Your task to perform on an android device: Go to calendar. Show me events next week Image 0: 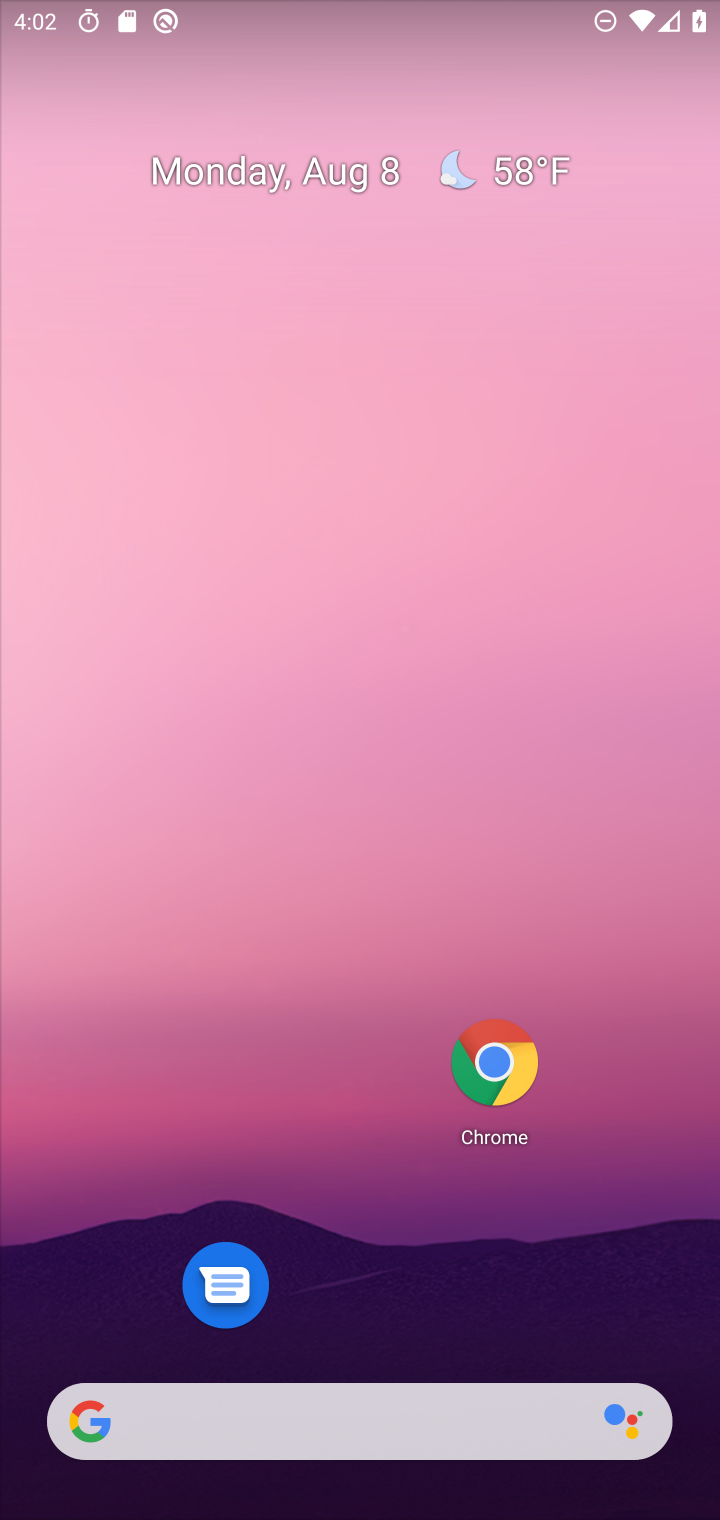
Step 0: drag from (315, 1274) to (300, 190)
Your task to perform on an android device: Go to calendar. Show me events next week Image 1: 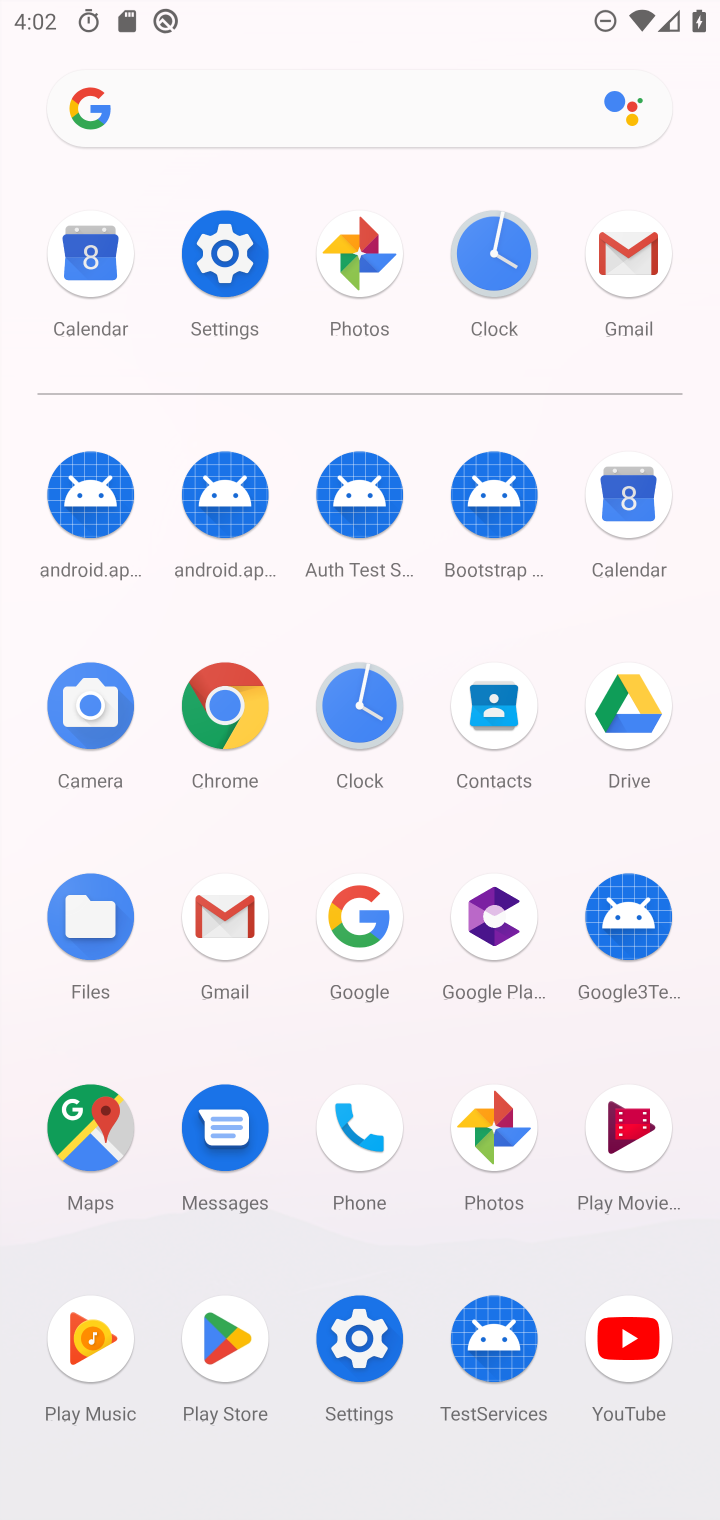
Step 1: click (108, 273)
Your task to perform on an android device: Go to calendar. Show me events next week Image 2: 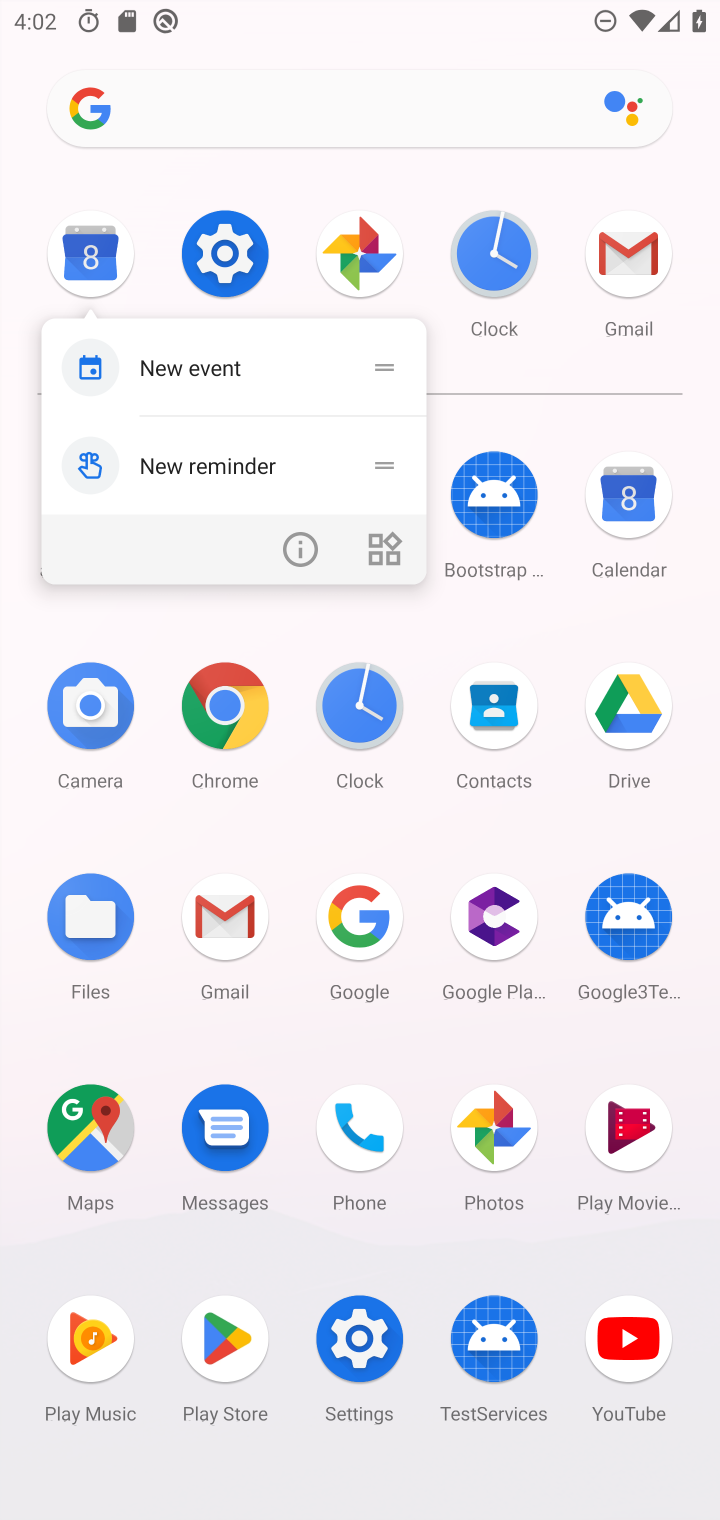
Step 2: click (90, 238)
Your task to perform on an android device: Go to calendar. Show me events next week Image 3: 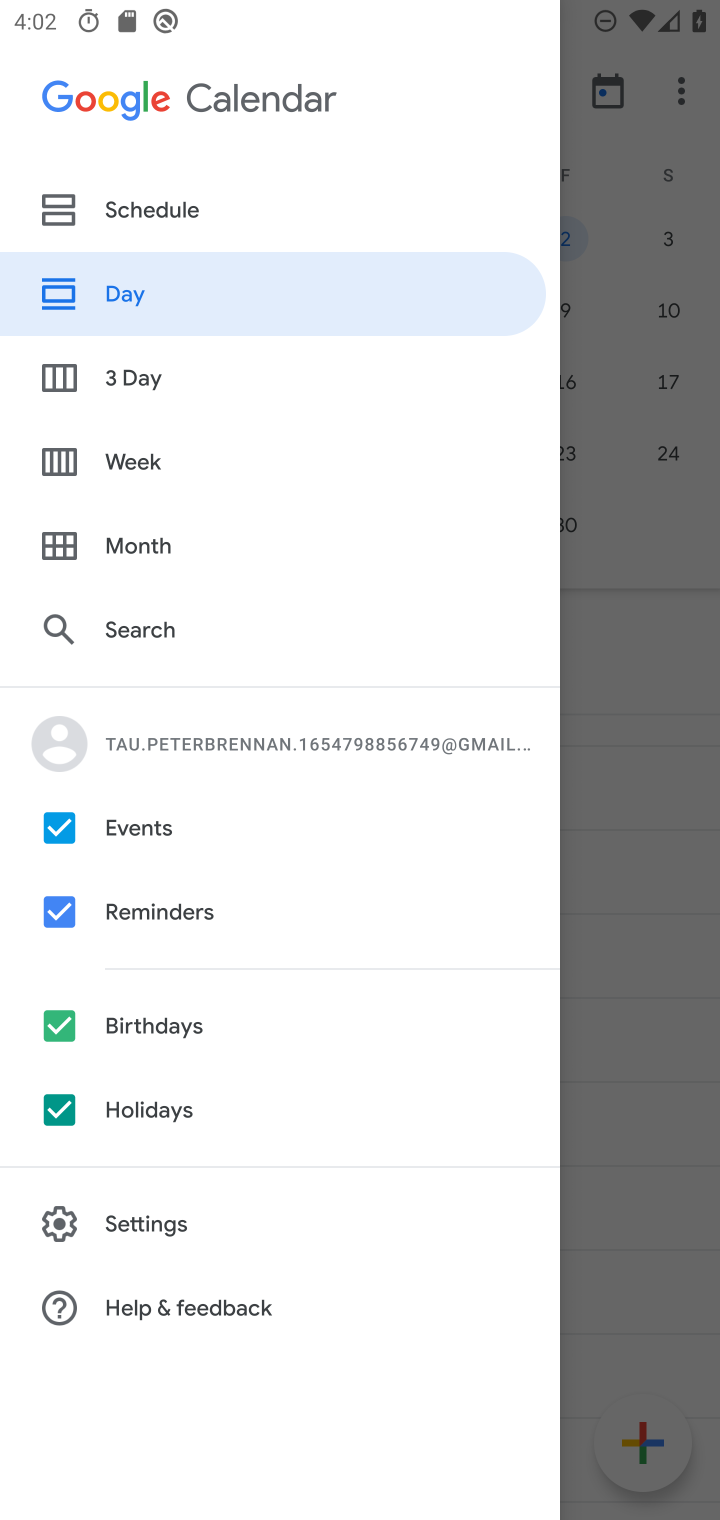
Step 3: click (208, 206)
Your task to perform on an android device: Go to calendar. Show me events next week Image 4: 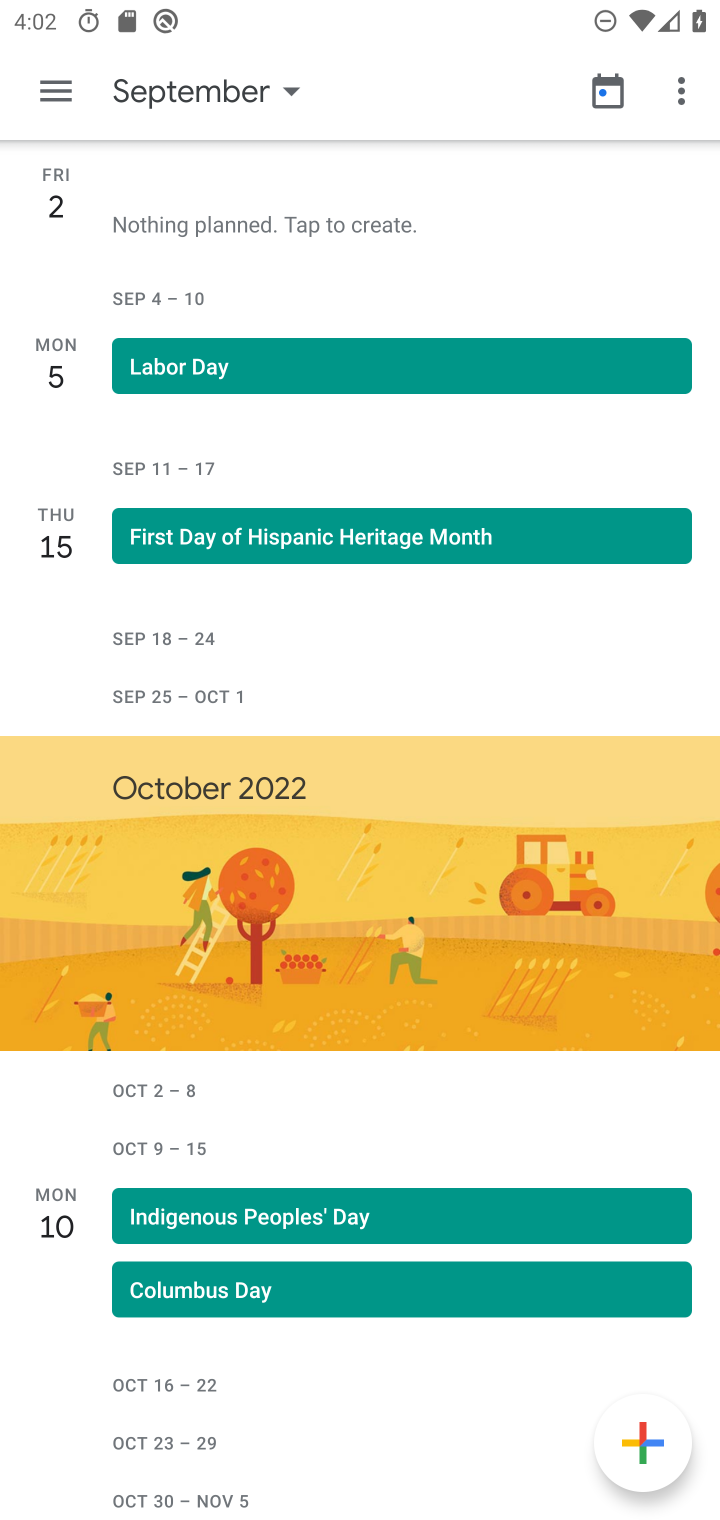
Step 4: click (279, 83)
Your task to perform on an android device: Go to calendar. Show me events next week Image 5: 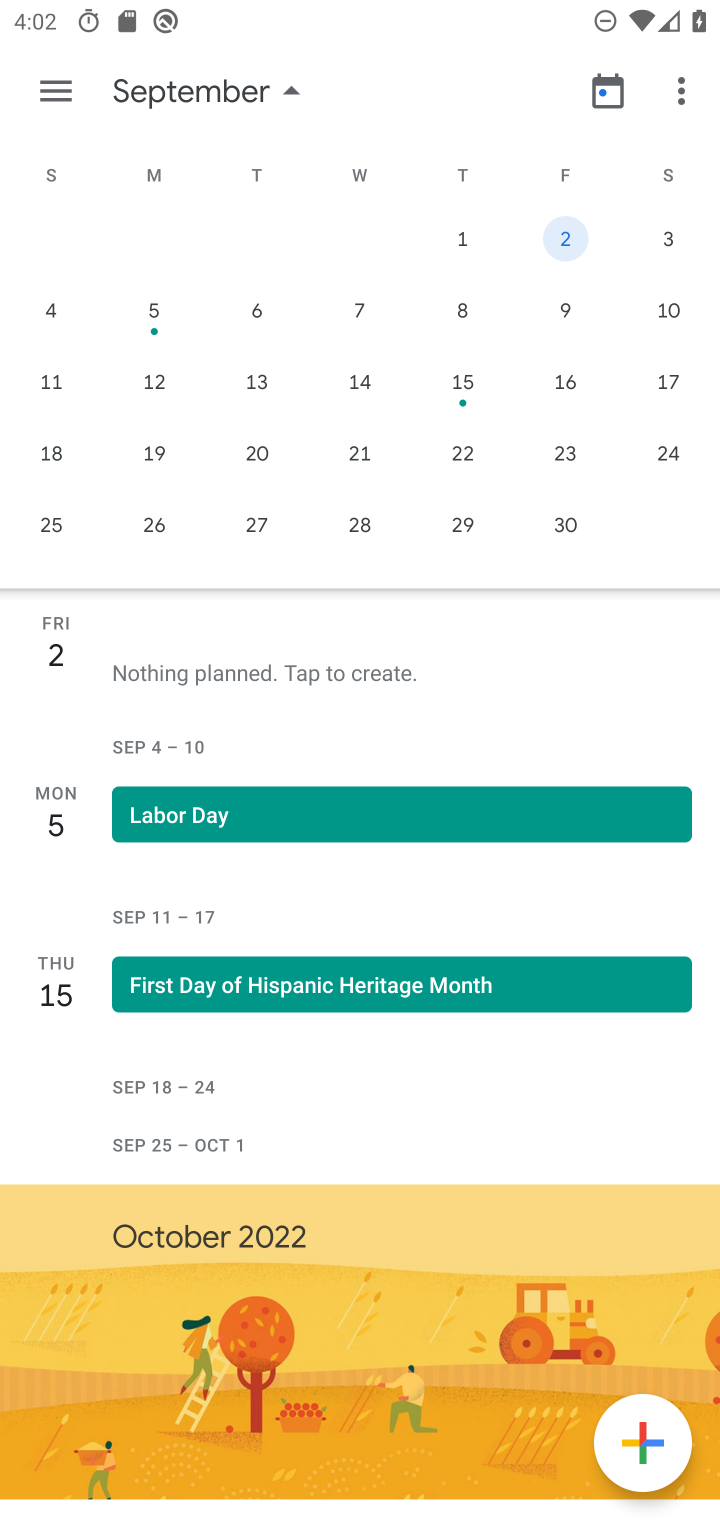
Step 5: click (660, 385)
Your task to perform on an android device: Go to calendar. Show me events next week Image 6: 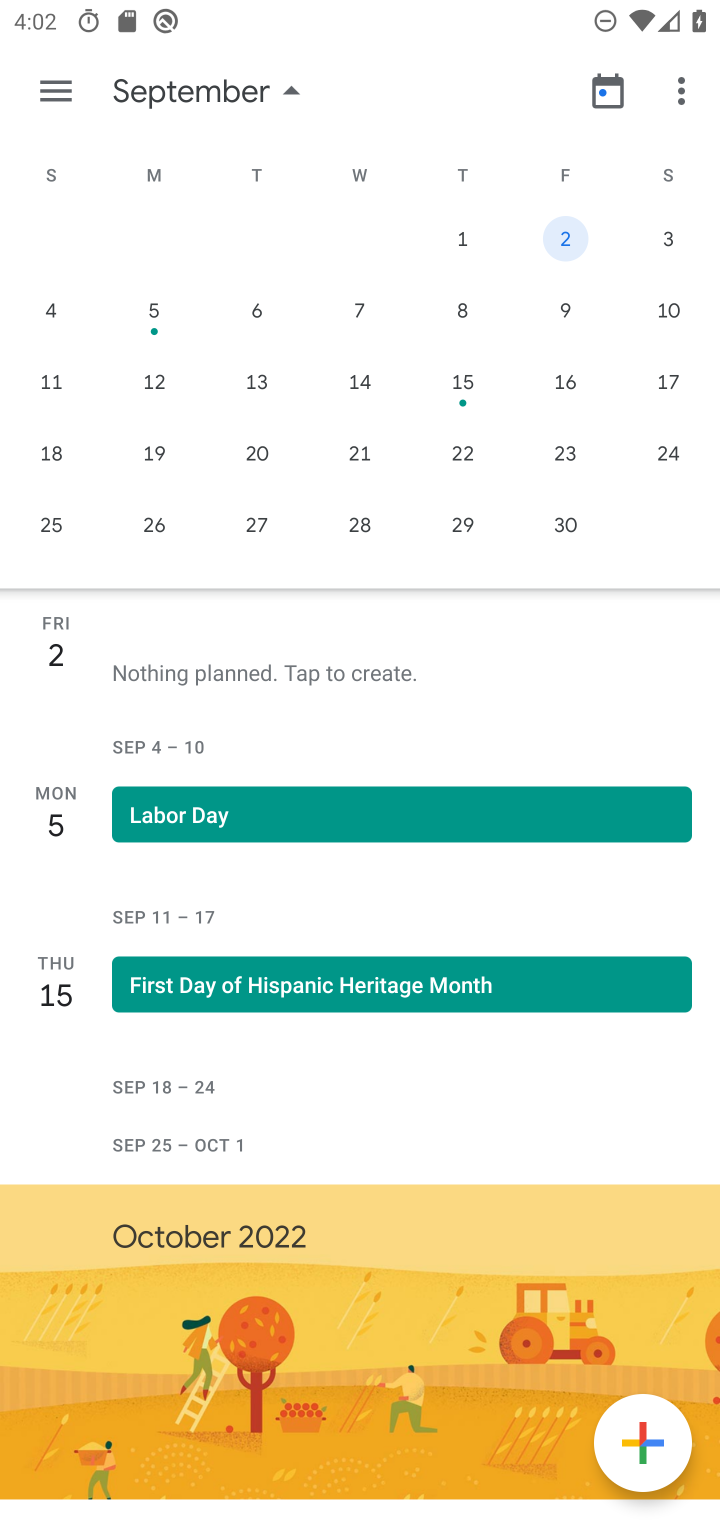
Step 6: drag from (55, 378) to (701, 383)
Your task to perform on an android device: Go to calendar. Show me events next week Image 7: 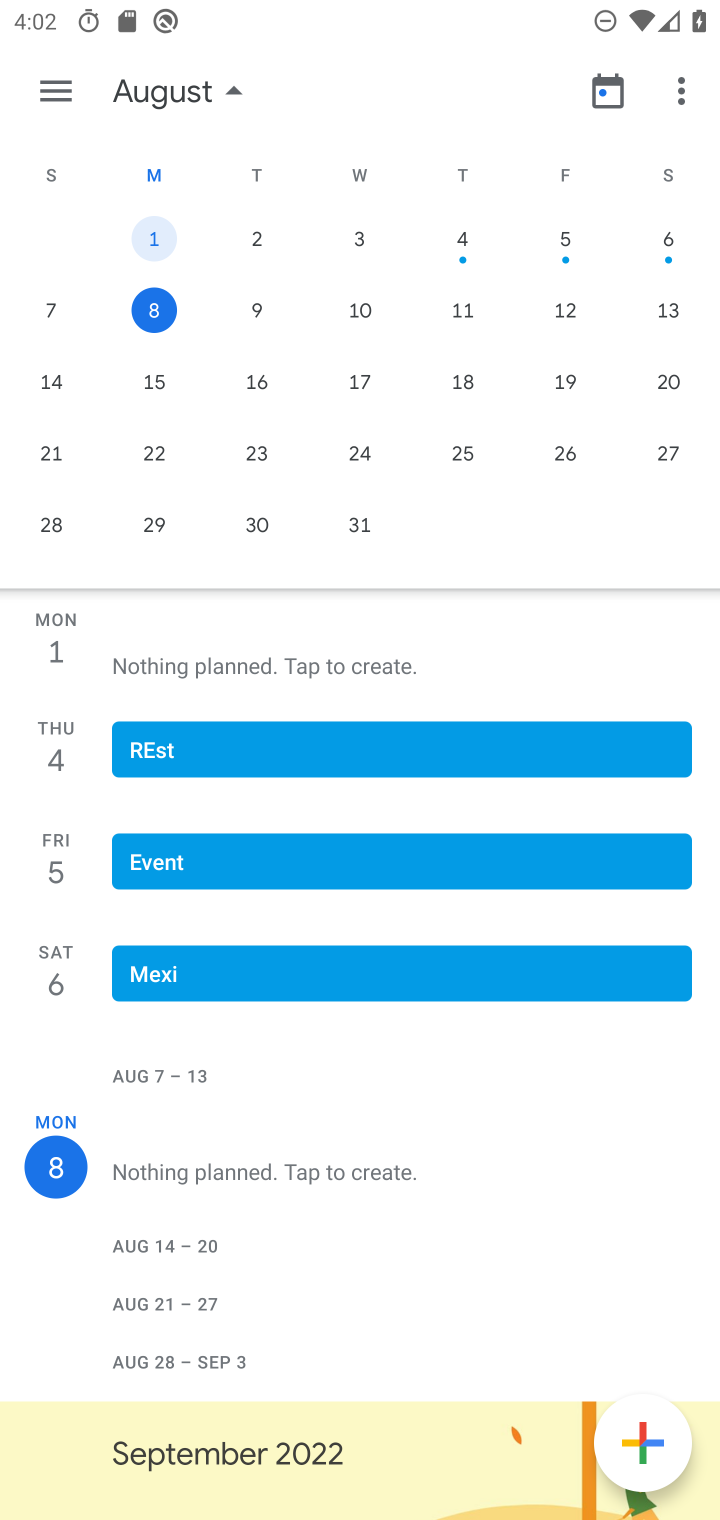
Step 7: click (158, 368)
Your task to perform on an android device: Go to calendar. Show me events next week Image 8: 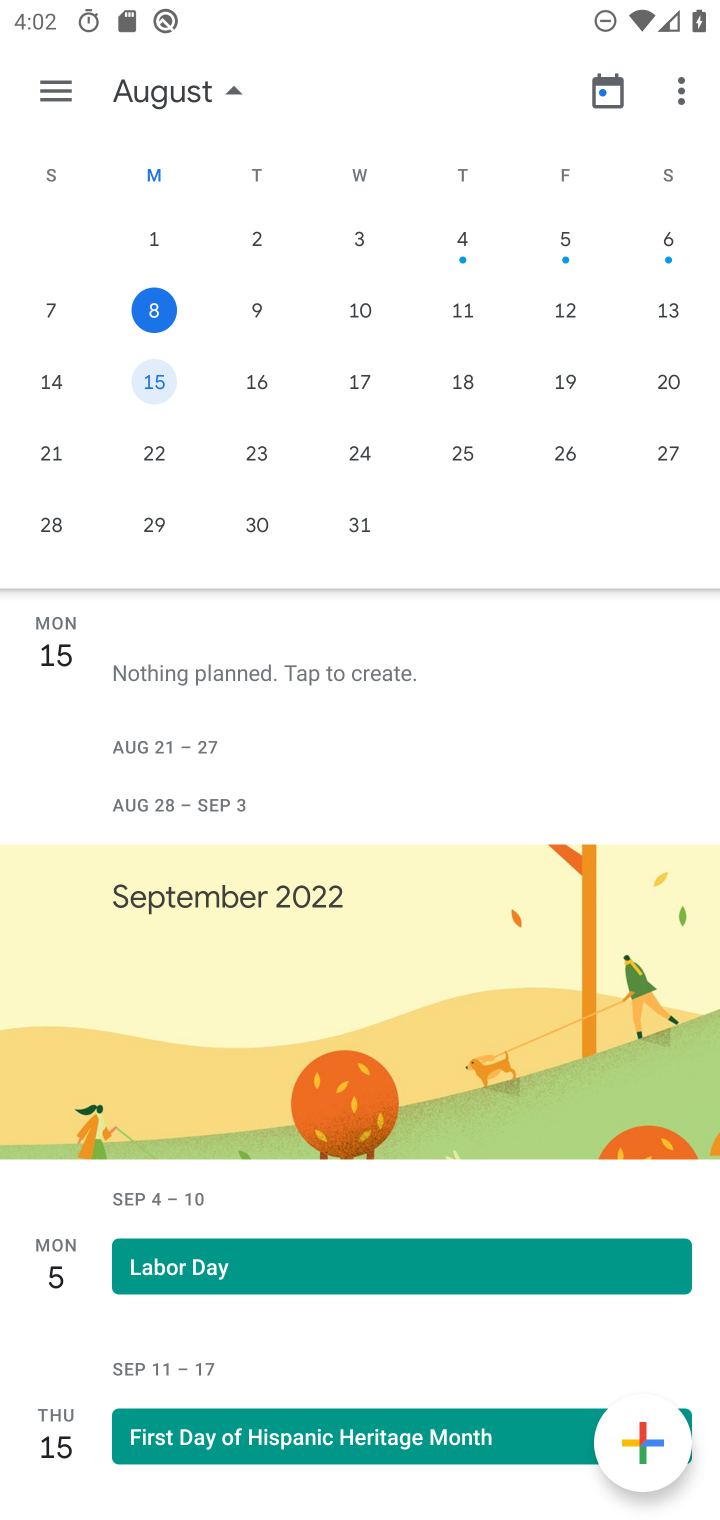
Step 8: task complete